Your task to perform on an android device: open wifi settings Image 0: 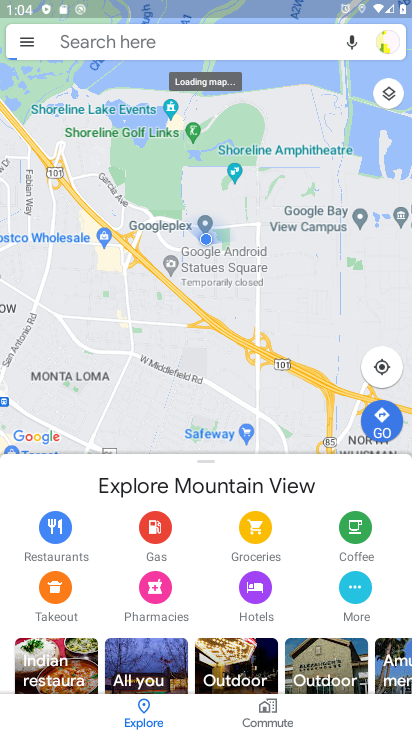
Step 0: press home button
Your task to perform on an android device: open wifi settings Image 1: 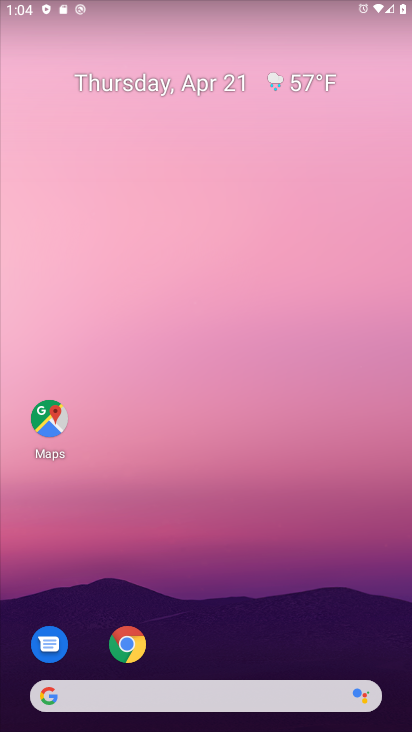
Step 1: drag from (204, 670) to (155, 40)
Your task to perform on an android device: open wifi settings Image 2: 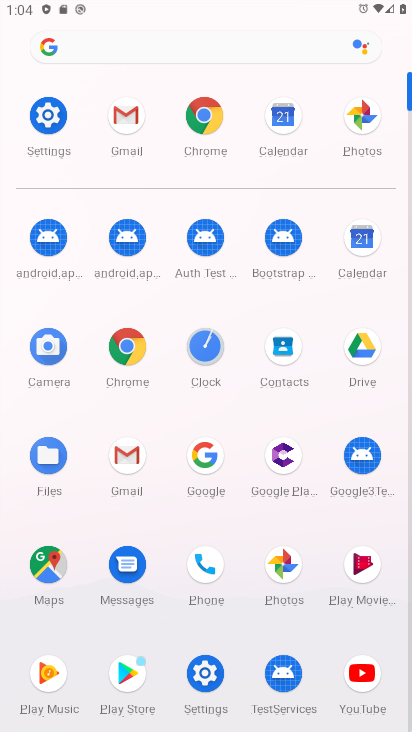
Step 2: click (196, 672)
Your task to perform on an android device: open wifi settings Image 3: 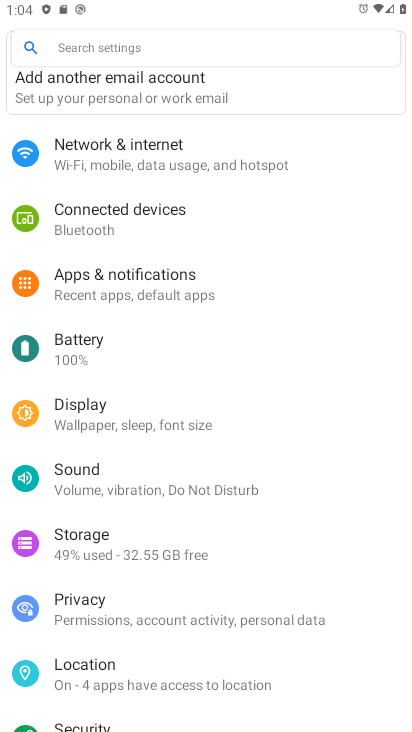
Step 3: click (128, 161)
Your task to perform on an android device: open wifi settings Image 4: 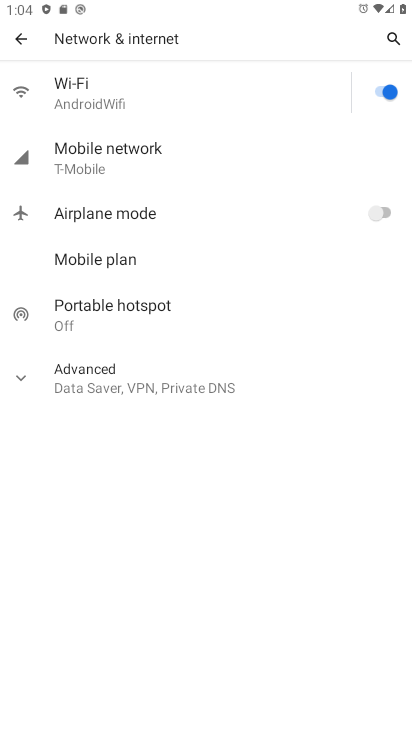
Step 4: click (283, 95)
Your task to perform on an android device: open wifi settings Image 5: 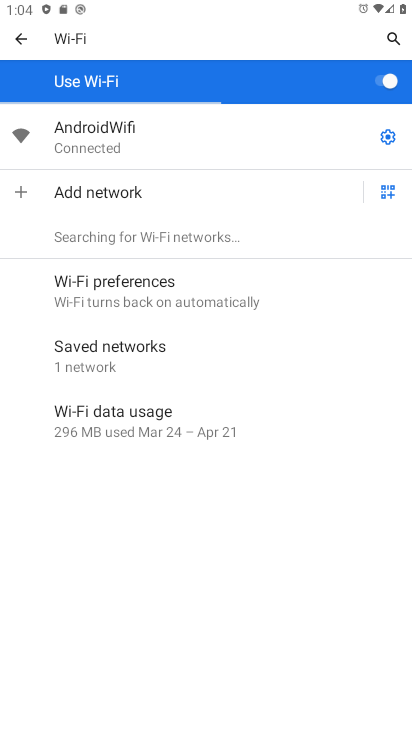
Step 5: task complete